Your task to perform on an android device: turn off sleep mode Image 0: 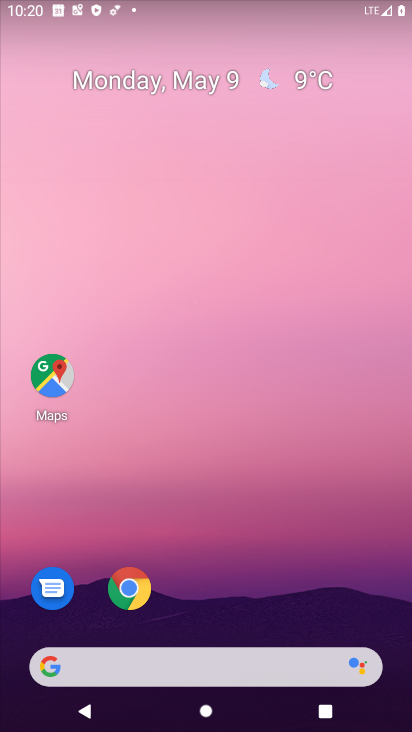
Step 0: press home button
Your task to perform on an android device: turn off sleep mode Image 1: 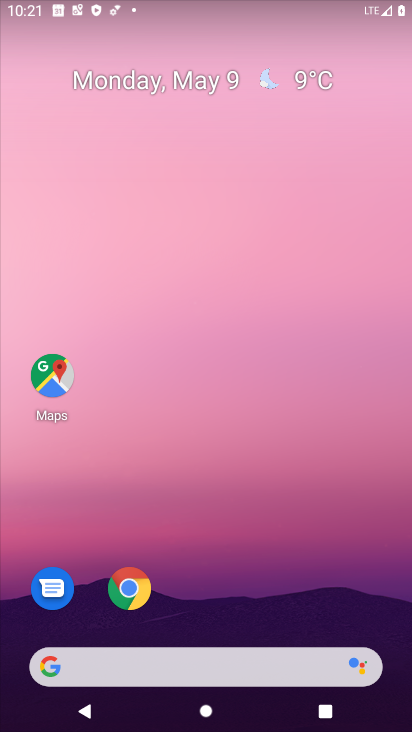
Step 1: drag from (205, 621) to (272, 161)
Your task to perform on an android device: turn off sleep mode Image 2: 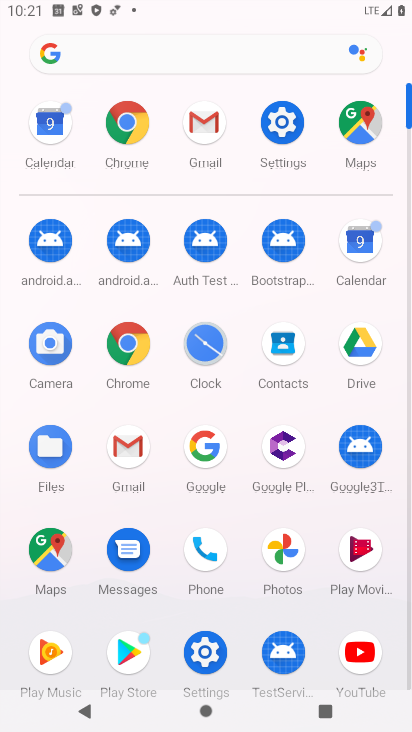
Step 2: click (282, 132)
Your task to perform on an android device: turn off sleep mode Image 3: 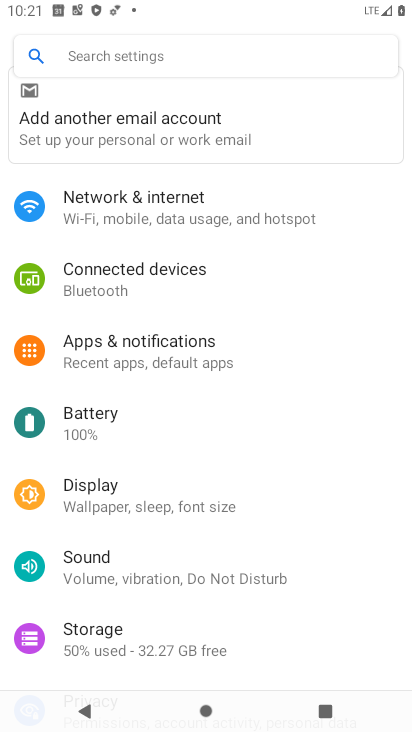
Step 3: click (162, 505)
Your task to perform on an android device: turn off sleep mode Image 4: 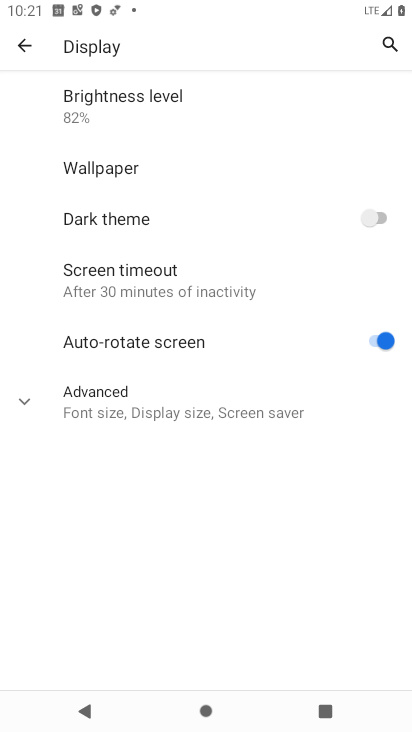
Step 4: click (118, 404)
Your task to perform on an android device: turn off sleep mode Image 5: 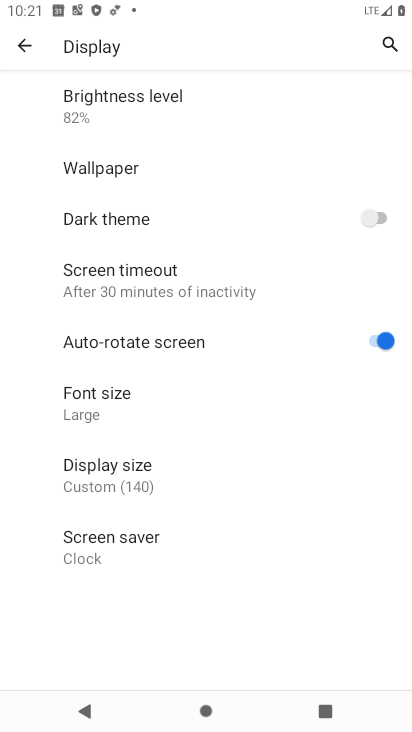
Step 5: task complete